Your task to perform on an android device: Open Chrome and go to settings Image 0: 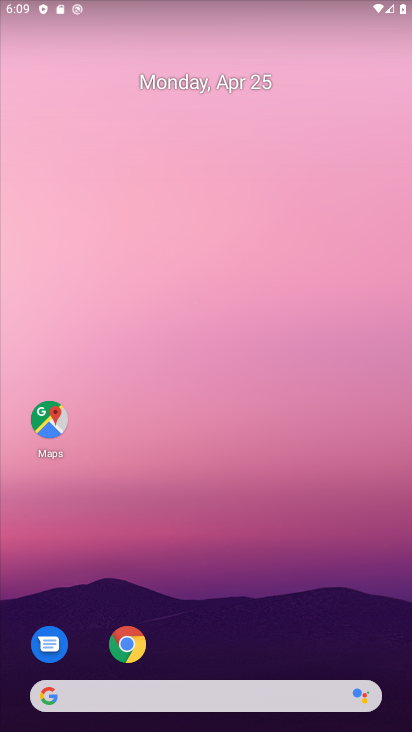
Step 0: click (125, 646)
Your task to perform on an android device: Open Chrome and go to settings Image 1: 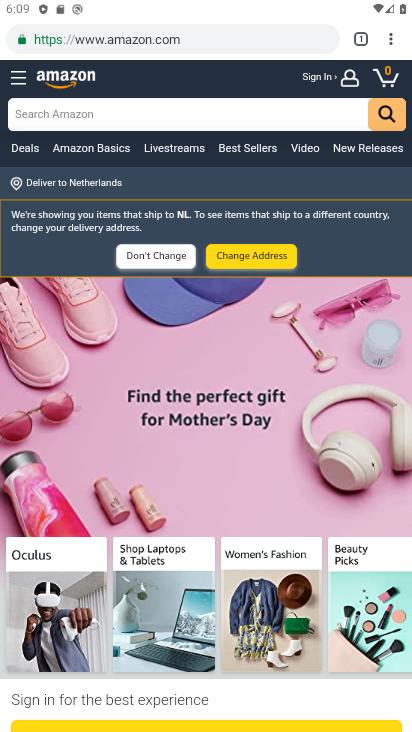
Step 1: click (391, 40)
Your task to perform on an android device: Open Chrome and go to settings Image 2: 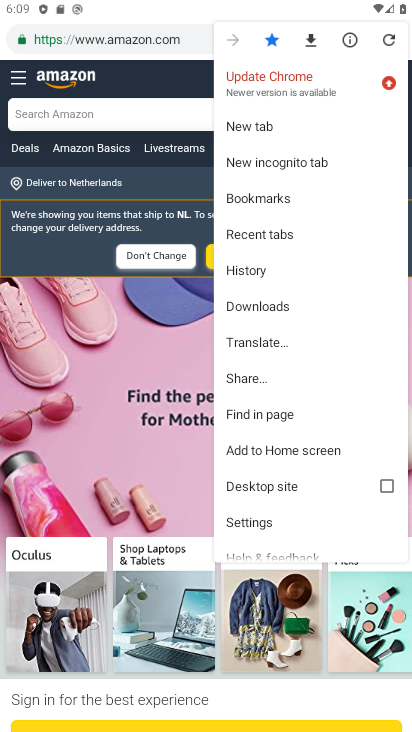
Step 2: click (271, 521)
Your task to perform on an android device: Open Chrome and go to settings Image 3: 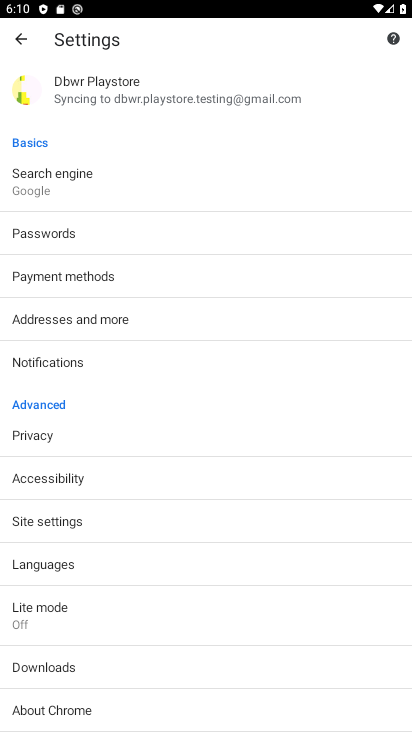
Step 3: task complete